Your task to perform on an android device: open app "Facebook" (install if not already installed) Image 0: 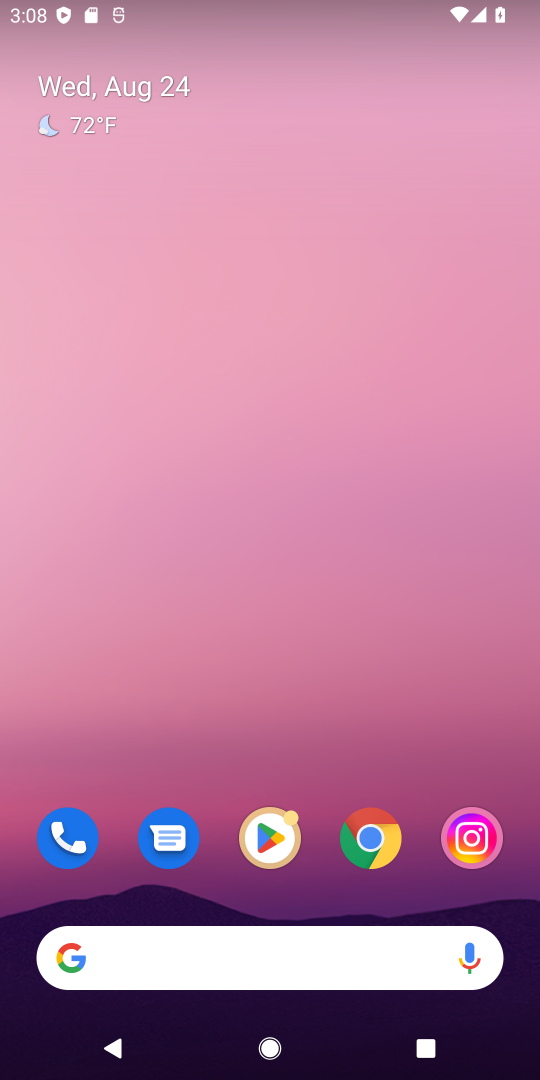
Step 0: press home button
Your task to perform on an android device: open app "Facebook" (install if not already installed) Image 1: 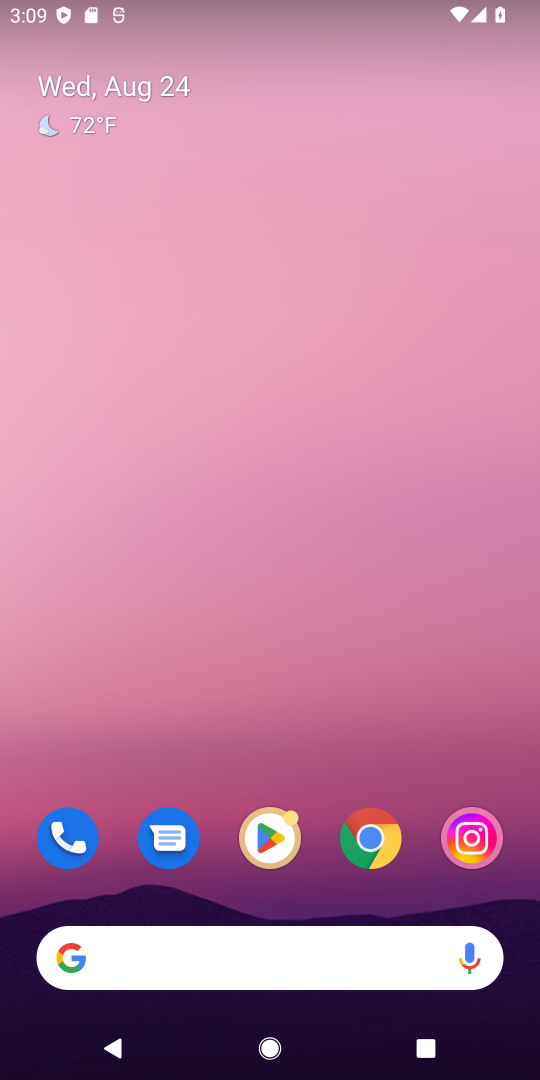
Step 1: drag from (417, 733) to (450, 101)
Your task to perform on an android device: open app "Facebook" (install if not already installed) Image 2: 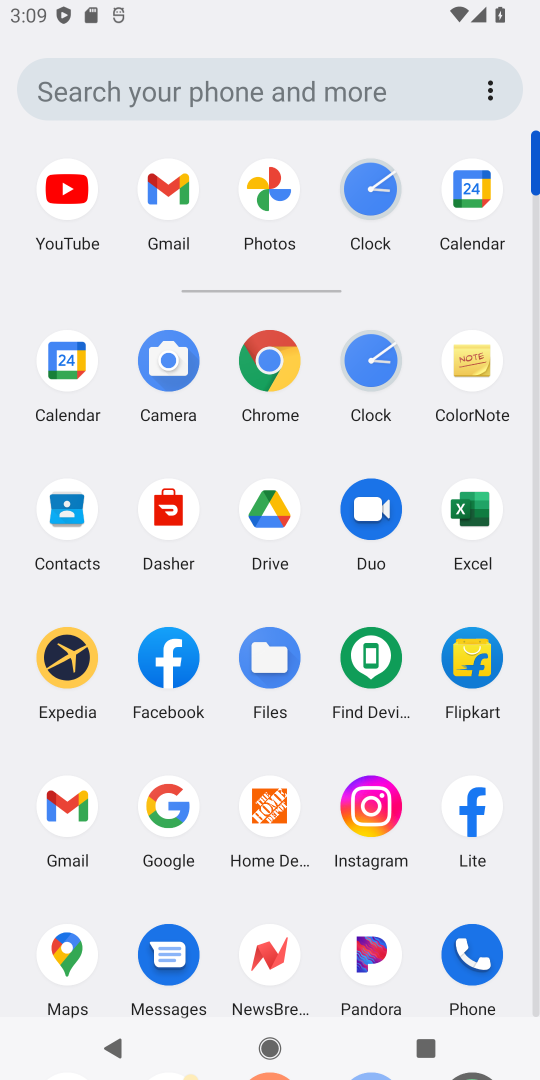
Step 2: drag from (509, 895) to (513, 432)
Your task to perform on an android device: open app "Facebook" (install if not already installed) Image 3: 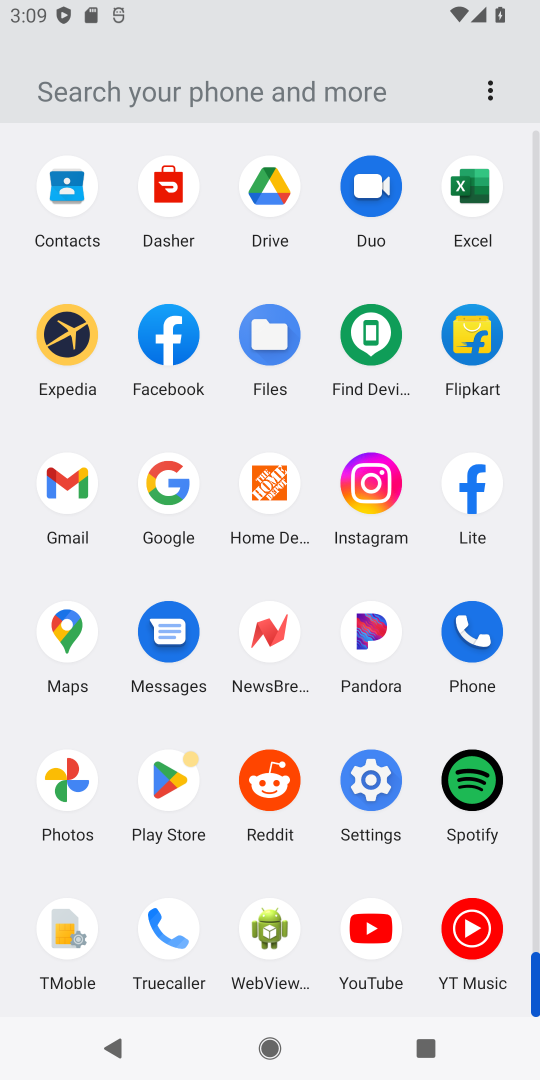
Step 3: click (168, 780)
Your task to perform on an android device: open app "Facebook" (install if not already installed) Image 4: 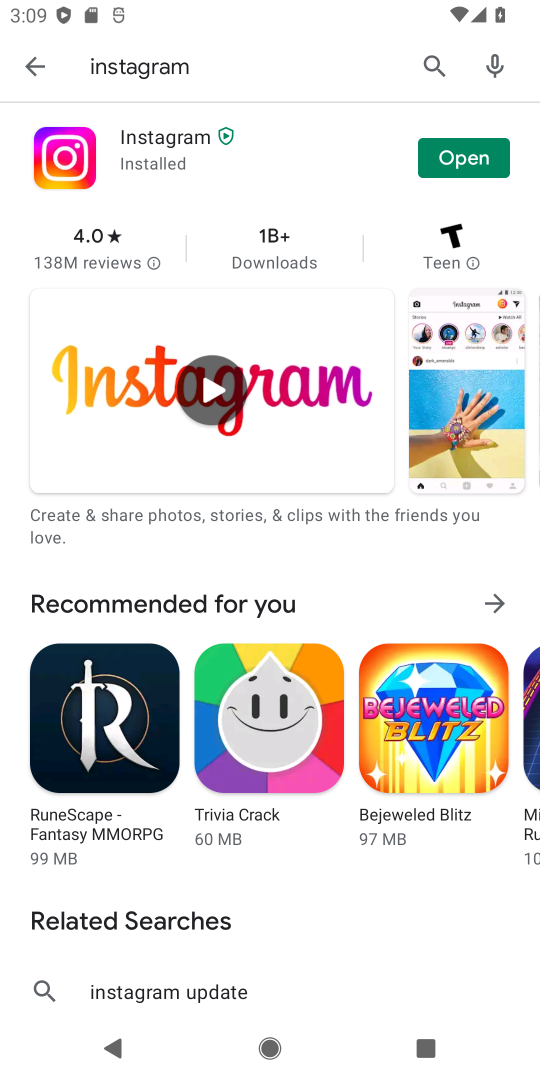
Step 4: press back button
Your task to perform on an android device: open app "Facebook" (install if not already installed) Image 5: 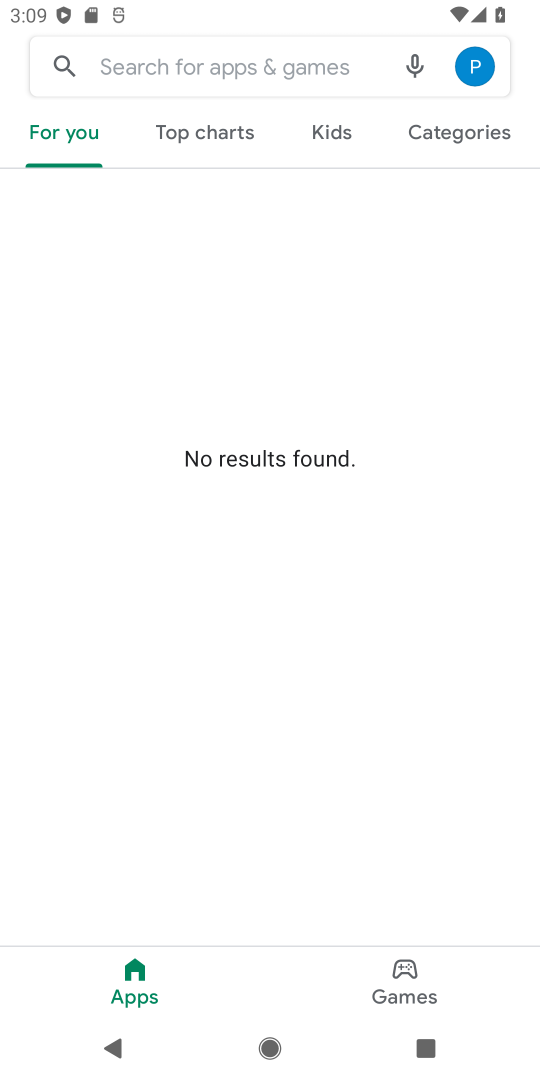
Step 5: click (202, 65)
Your task to perform on an android device: open app "Facebook" (install if not already installed) Image 6: 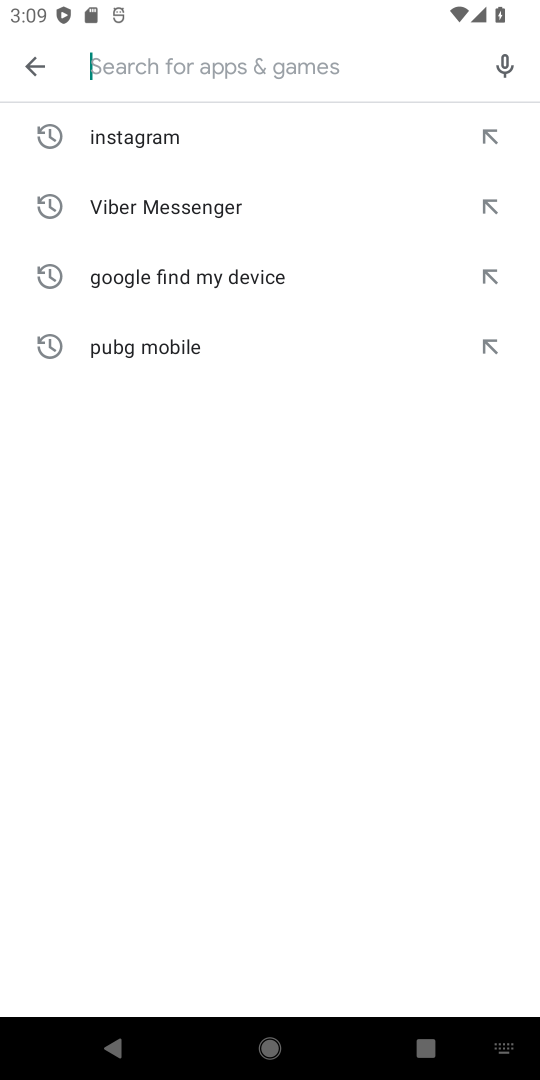
Step 6: press enter
Your task to perform on an android device: open app "Facebook" (install if not already installed) Image 7: 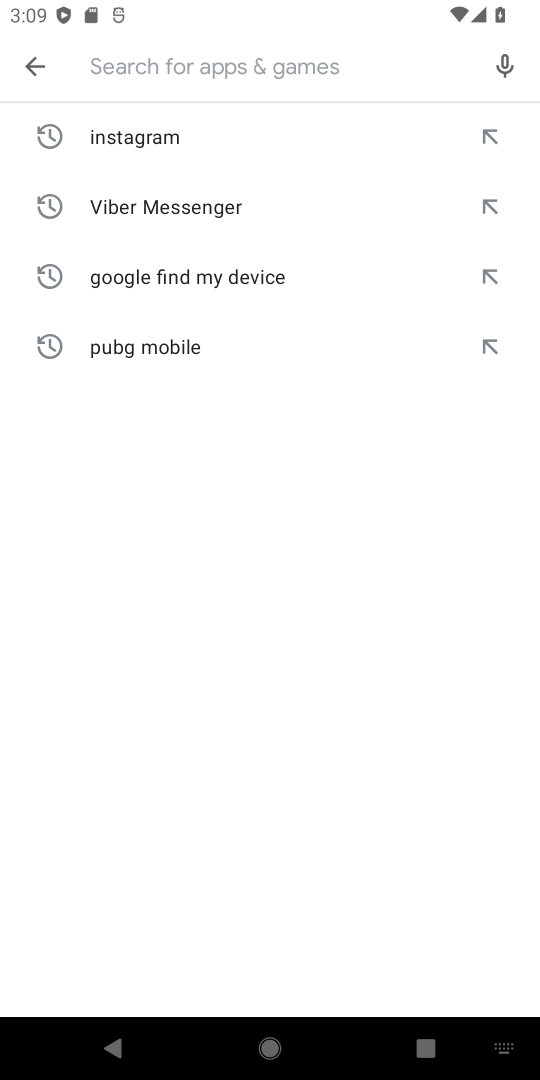
Step 7: type "facebook"
Your task to perform on an android device: open app "Facebook" (install if not already installed) Image 8: 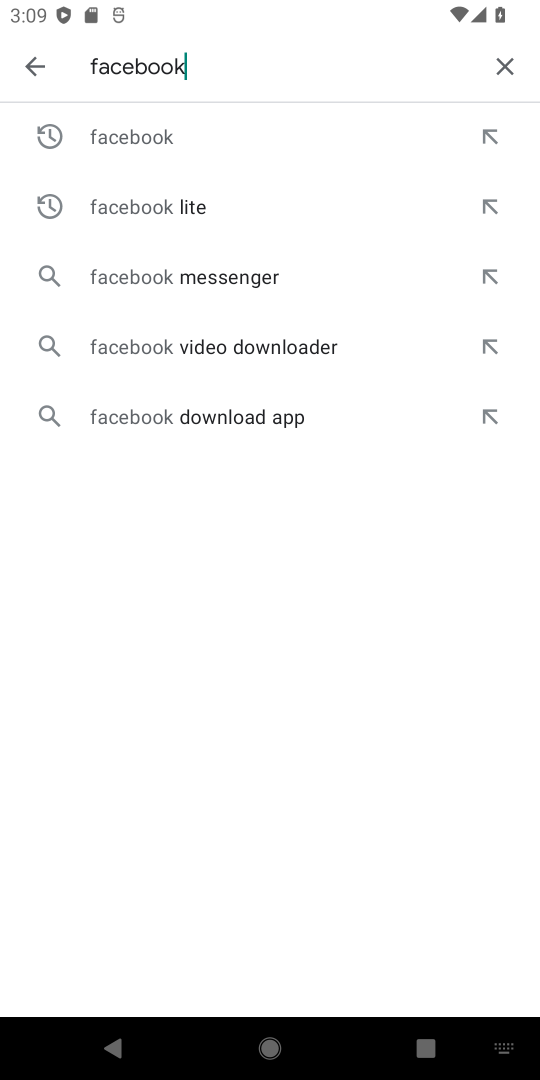
Step 8: click (182, 133)
Your task to perform on an android device: open app "Facebook" (install if not already installed) Image 9: 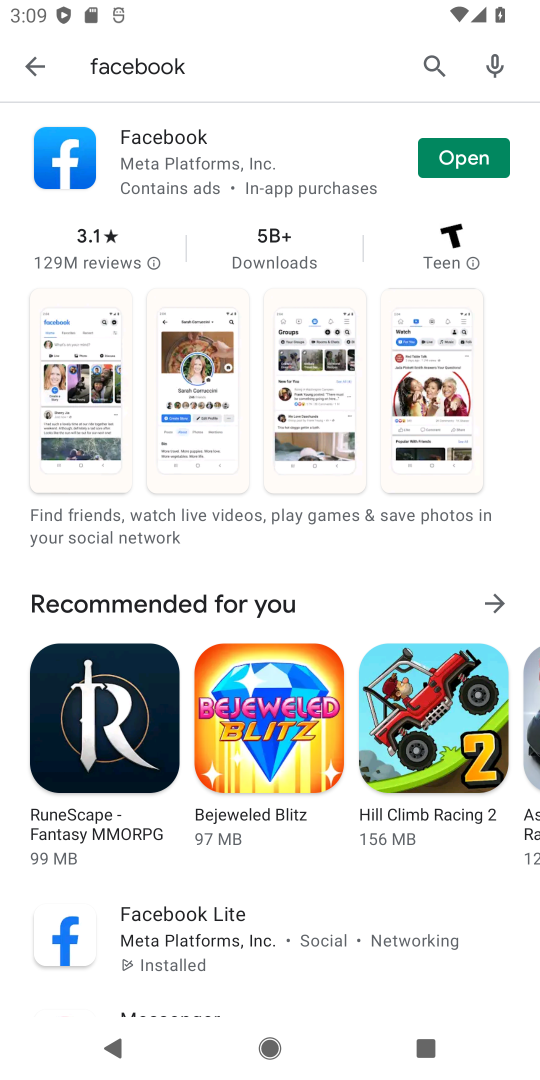
Step 9: task complete